Your task to perform on an android device: clear all cookies in the chrome app Image 0: 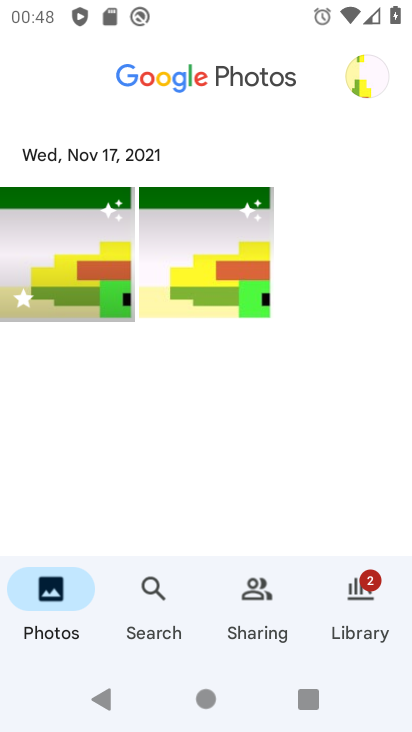
Step 0: press home button
Your task to perform on an android device: clear all cookies in the chrome app Image 1: 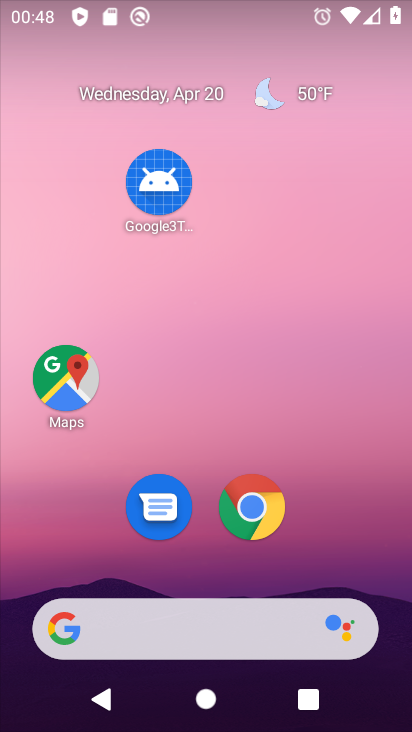
Step 1: click (259, 516)
Your task to perform on an android device: clear all cookies in the chrome app Image 2: 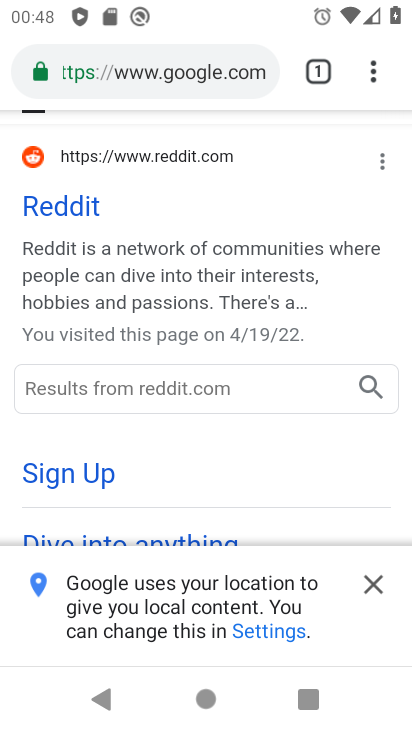
Step 2: click (370, 67)
Your task to perform on an android device: clear all cookies in the chrome app Image 3: 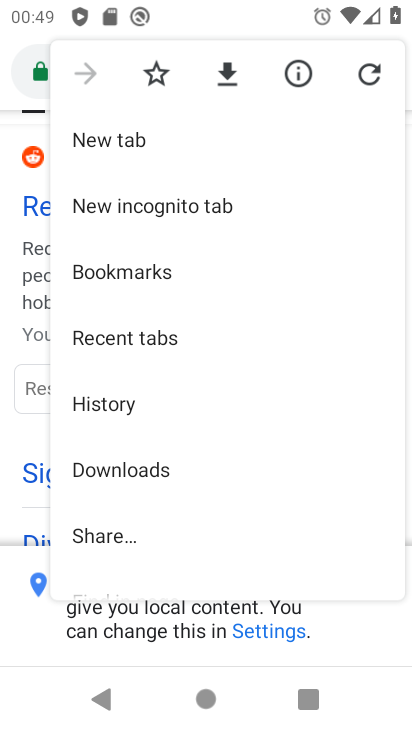
Step 3: drag from (204, 413) to (194, 126)
Your task to perform on an android device: clear all cookies in the chrome app Image 4: 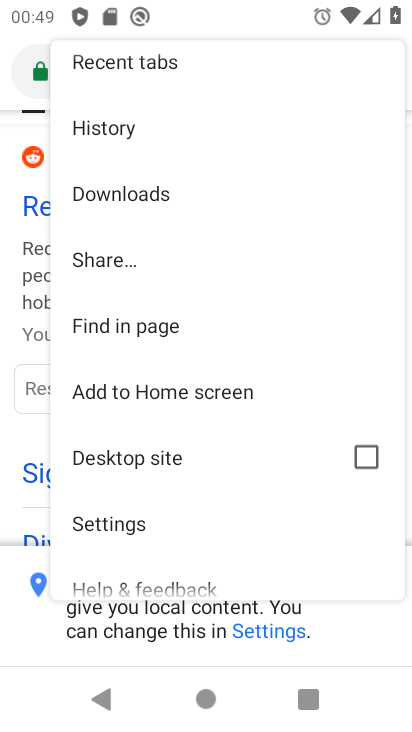
Step 4: drag from (267, 483) to (248, 196)
Your task to perform on an android device: clear all cookies in the chrome app Image 5: 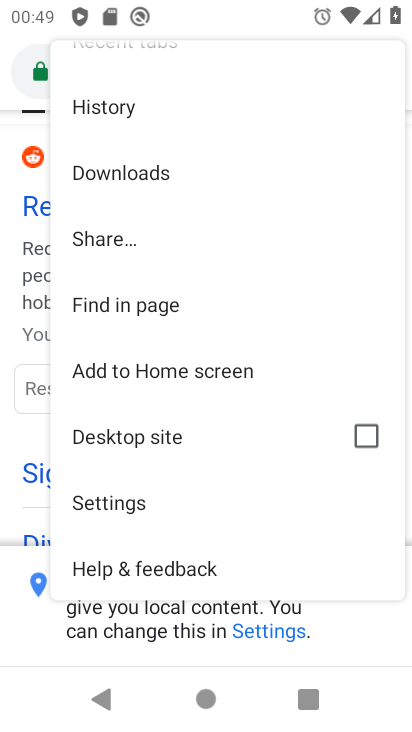
Step 5: click (119, 498)
Your task to perform on an android device: clear all cookies in the chrome app Image 6: 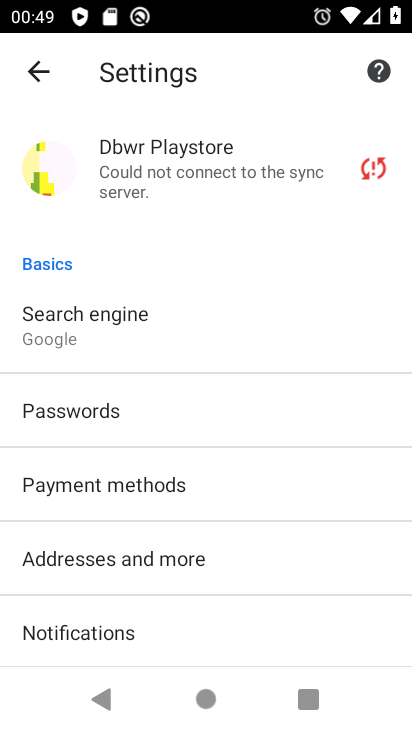
Step 6: drag from (183, 448) to (206, 196)
Your task to perform on an android device: clear all cookies in the chrome app Image 7: 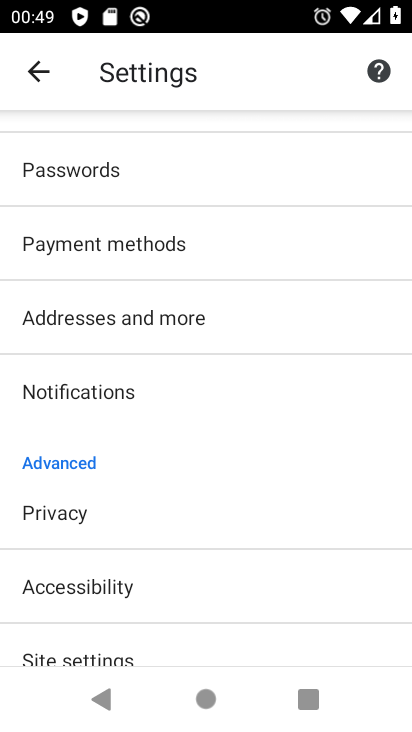
Step 7: click (60, 507)
Your task to perform on an android device: clear all cookies in the chrome app Image 8: 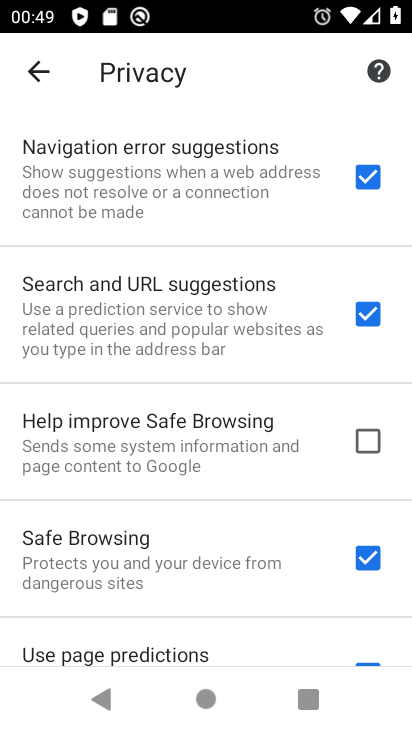
Step 8: drag from (195, 560) to (172, 58)
Your task to perform on an android device: clear all cookies in the chrome app Image 9: 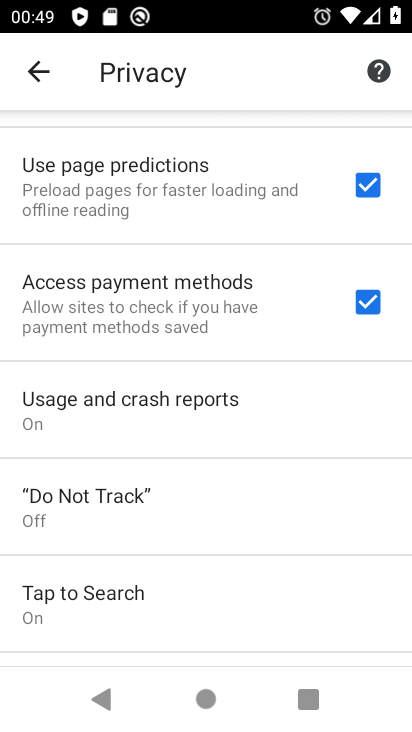
Step 9: drag from (225, 531) to (288, 31)
Your task to perform on an android device: clear all cookies in the chrome app Image 10: 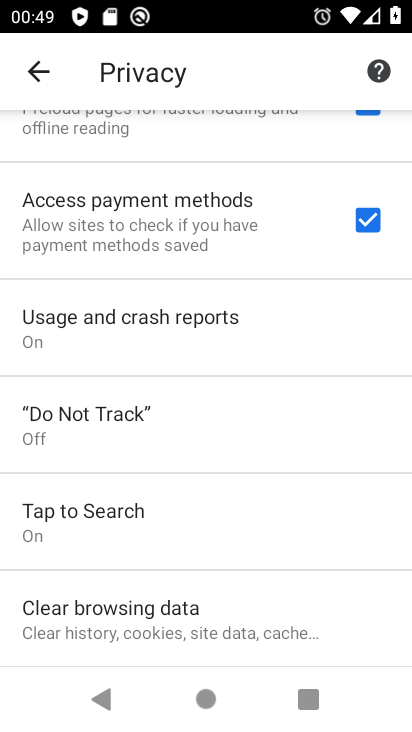
Step 10: drag from (229, 560) to (230, 249)
Your task to perform on an android device: clear all cookies in the chrome app Image 11: 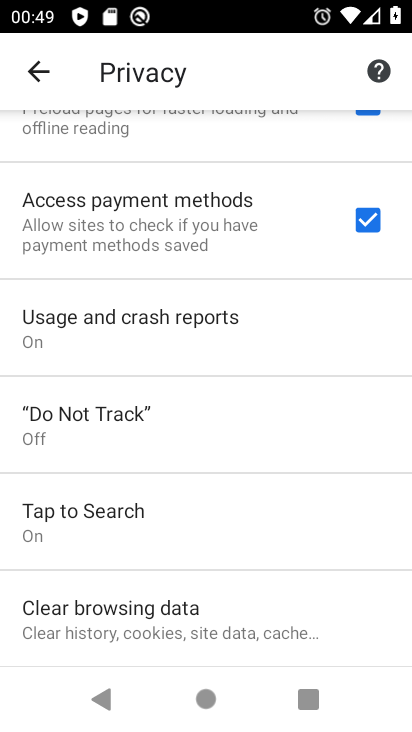
Step 11: click (147, 621)
Your task to perform on an android device: clear all cookies in the chrome app Image 12: 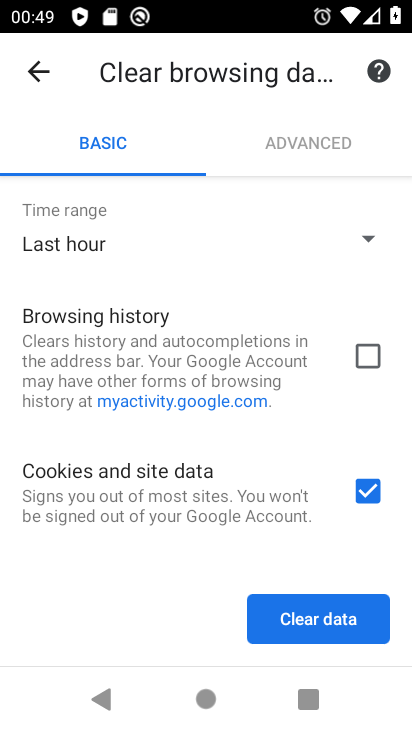
Step 12: click (294, 614)
Your task to perform on an android device: clear all cookies in the chrome app Image 13: 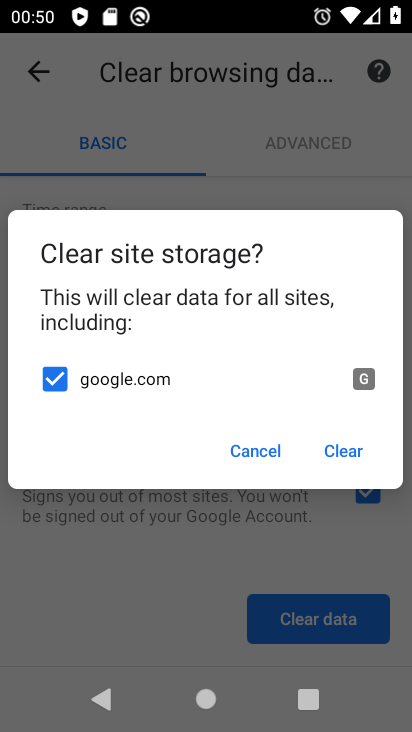
Step 13: click (347, 451)
Your task to perform on an android device: clear all cookies in the chrome app Image 14: 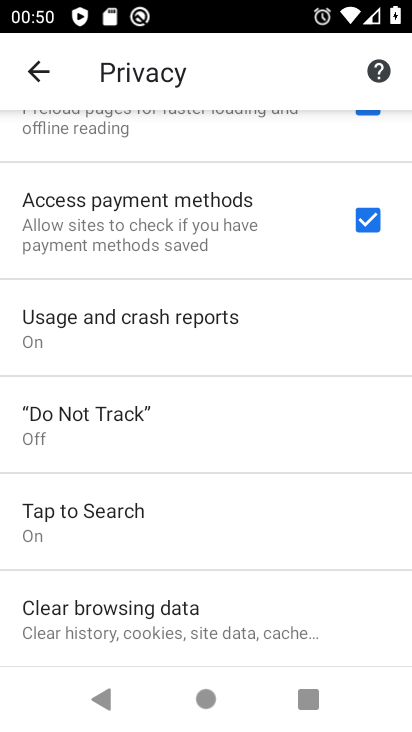
Step 14: task complete